Your task to perform on an android device: Search for sushi restaurants on Maps Image 0: 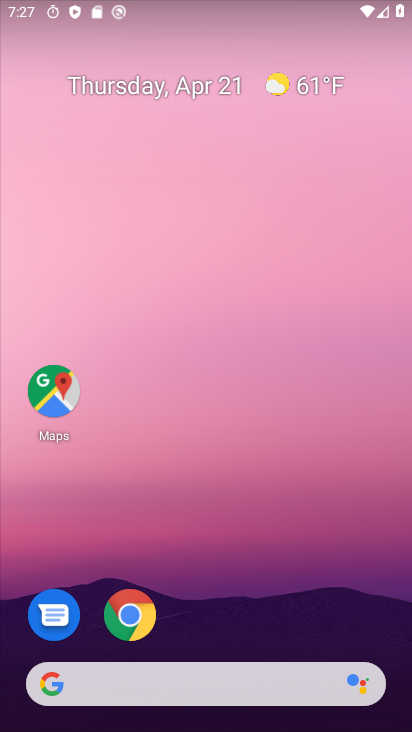
Step 0: drag from (201, 639) to (299, 200)
Your task to perform on an android device: Search for sushi restaurants on Maps Image 1: 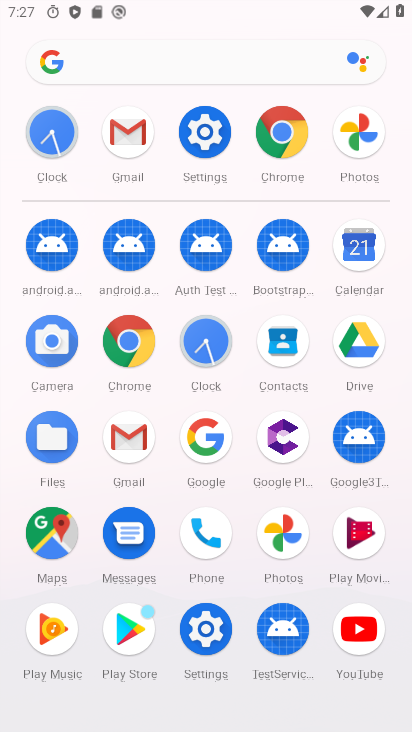
Step 1: click (54, 543)
Your task to perform on an android device: Search for sushi restaurants on Maps Image 2: 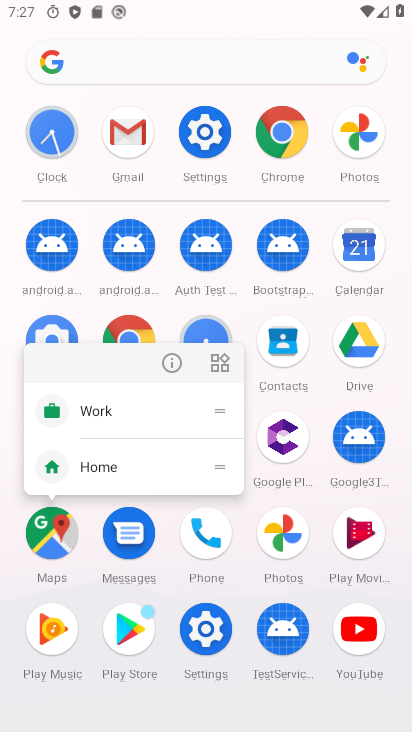
Step 2: click (180, 365)
Your task to perform on an android device: Search for sushi restaurants on Maps Image 3: 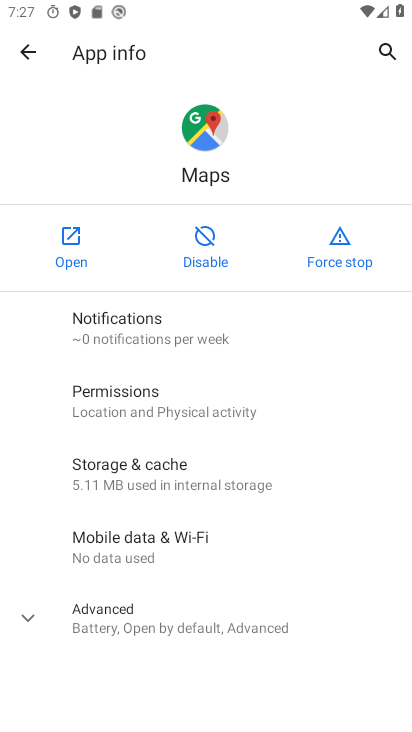
Step 3: click (75, 238)
Your task to perform on an android device: Search for sushi restaurants on Maps Image 4: 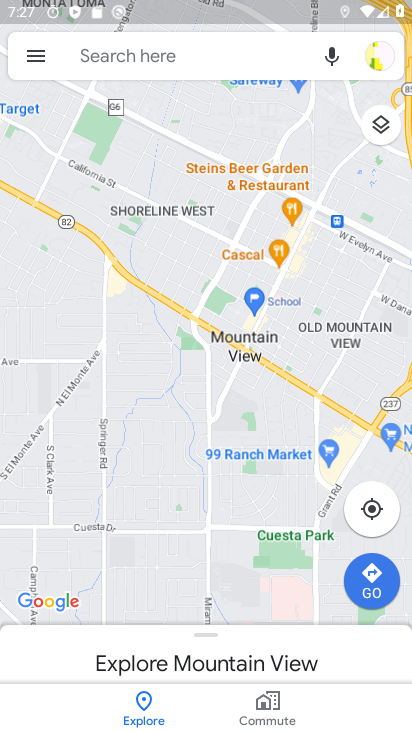
Step 4: click (143, 53)
Your task to perform on an android device: Search for sushi restaurants on Maps Image 5: 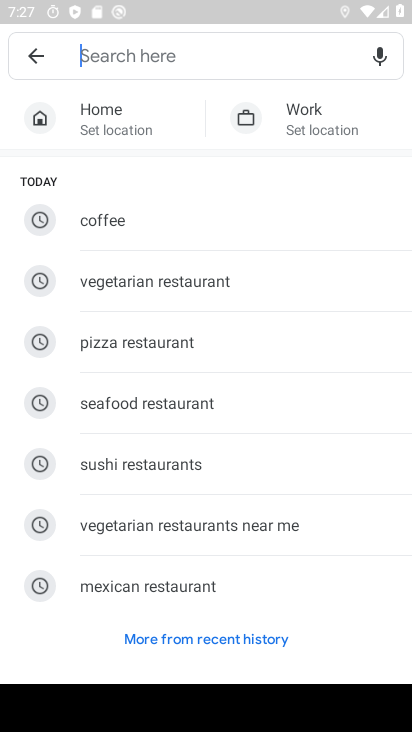
Step 5: click (184, 468)
Your task to perform on an android device: Search for sushi restaurants on Maps Image 6: 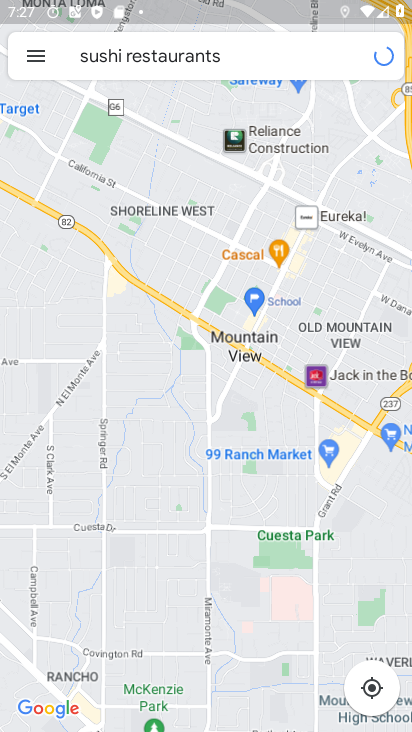
Step 6: task complete